Your task to perform on an android device: What's the weather? Image 0: 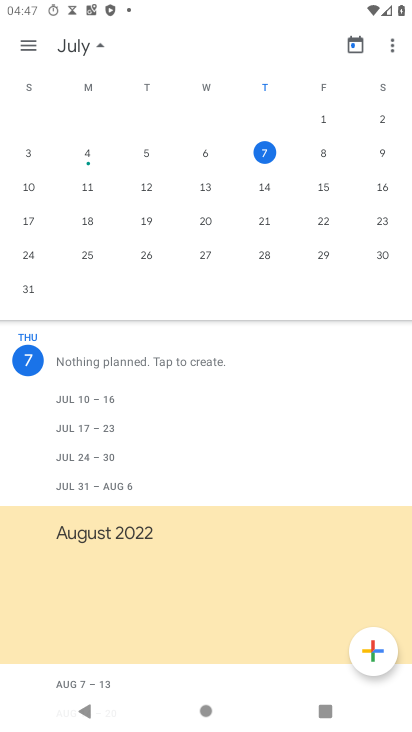
Step 0: press home button
Your task to perform on an android device: What's the weather? Image 1: 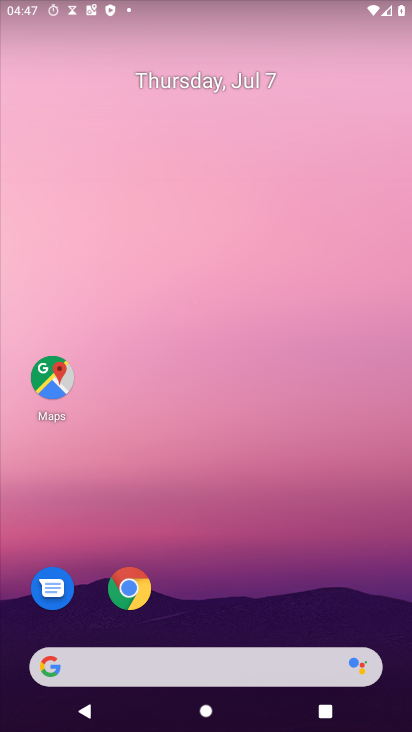
Step 1: click (53, 662)
Your task to perform on an android device: What's the weather? Image 2: 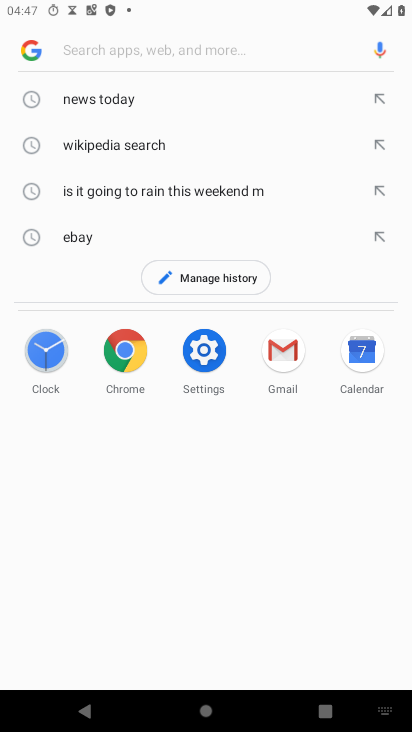
Step 2: type "What's the weather?"
Your task to perform on an android device: What's the weather? Image 3: 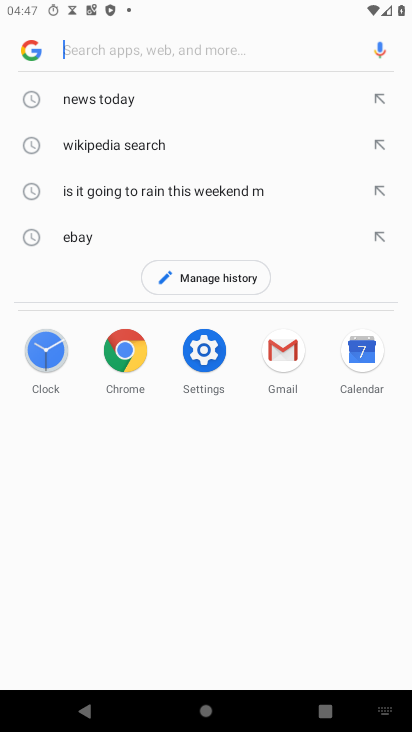
Step 3: click (180, 55)
Your task to perform on an android device: What's the weather? Image 4: 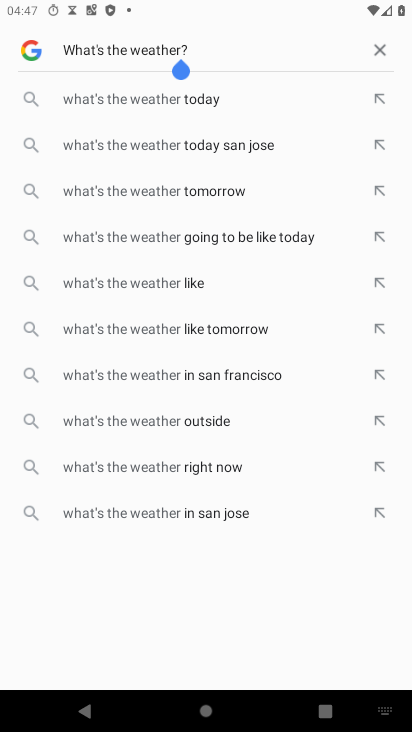
Step 4: click (195, 104)
Your task to perform on an android device: What's the weather? Image 5: 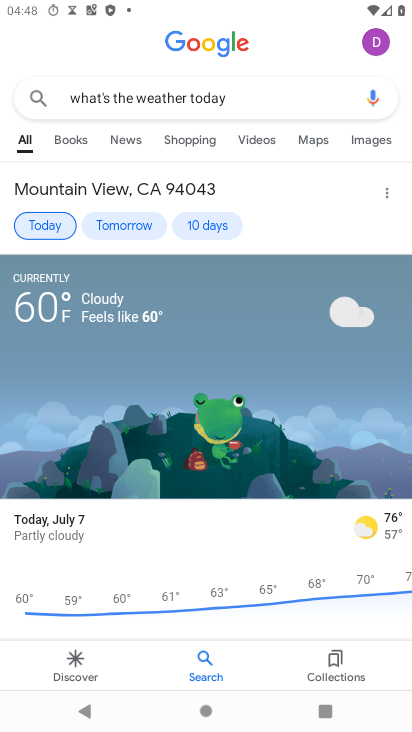
Step 5: task complete